Your task to perform on an android device: open wifi settings Image 0: 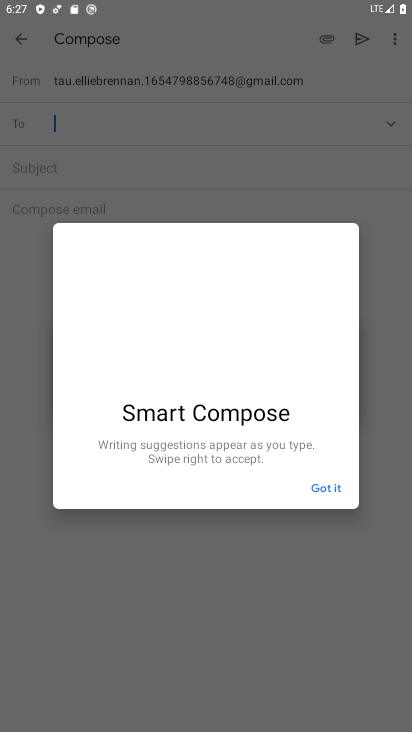
Step 0: press home button
Your task to perform on an android device: open wifi settings Image 1: 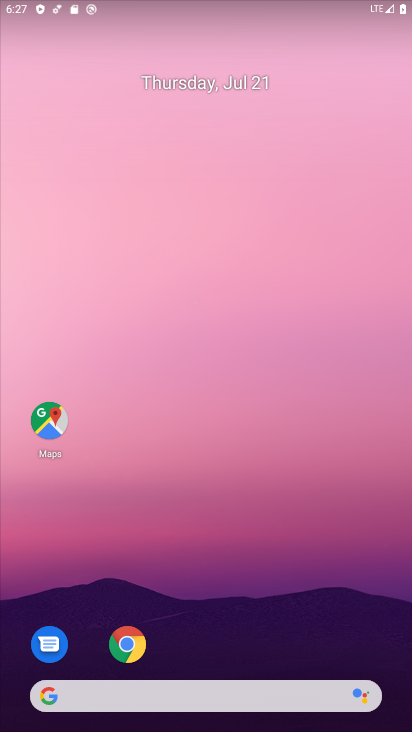
Step 1: click (275, 713)
Your task to perform on an android device: open wifi settings Image 2: 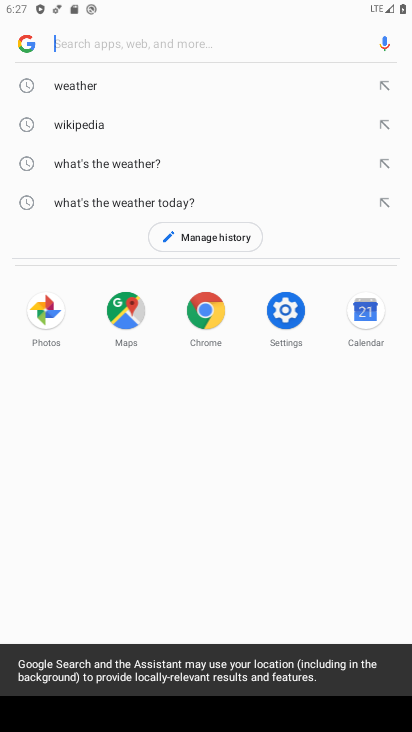
Step 2: click (159, 122)
Your task to perform on an android device: open wifi settings Image 3: 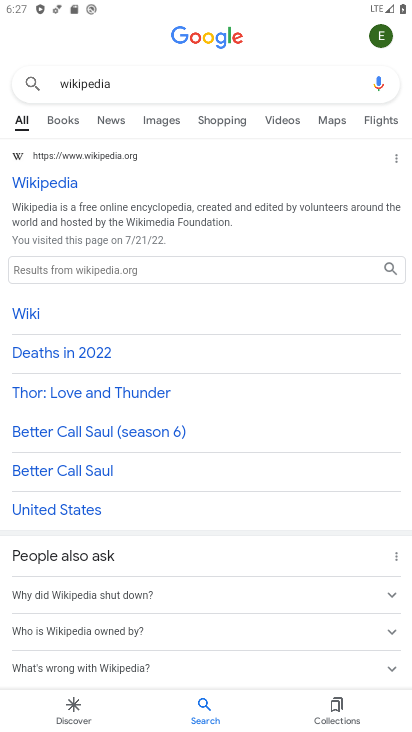
Step 3: click (21, 180)
Your task to perform on an android device: open wifi settings Image 4: 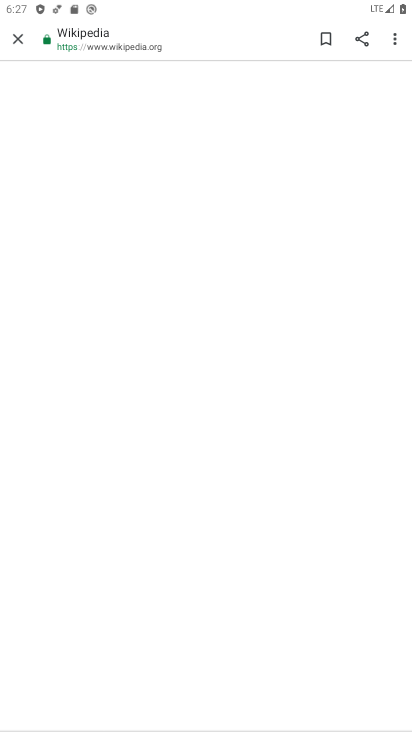
Step 4: task complete